Your task to perform on an android device: Open Google Image 0: 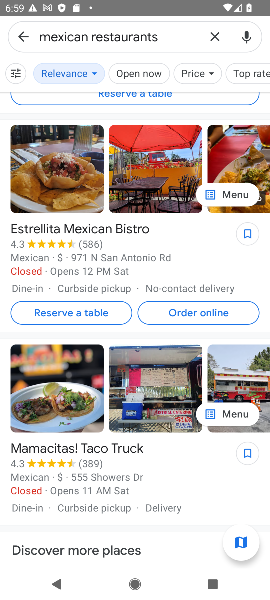
Step 0: press home button
Your task to perform on an android device: Open Google Image 1: 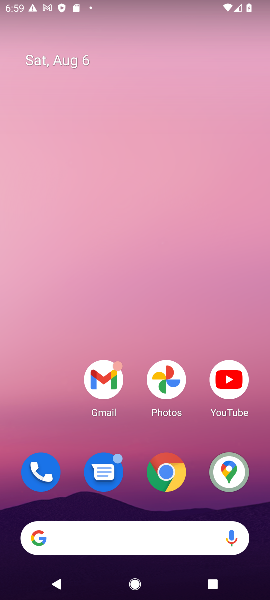
Step 1: click (166, 472)
Your task to perform on an android device: Open Google Image 2: 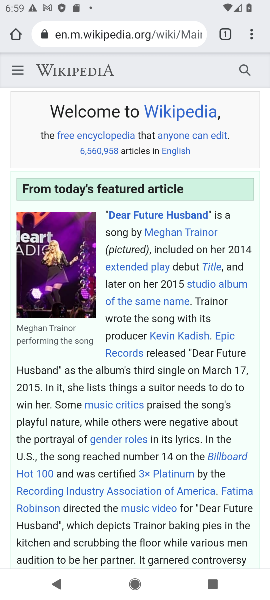
Step 2: task complete